Your task to perform on an android device: remove spam from my inbox in the gmail app Image 0: 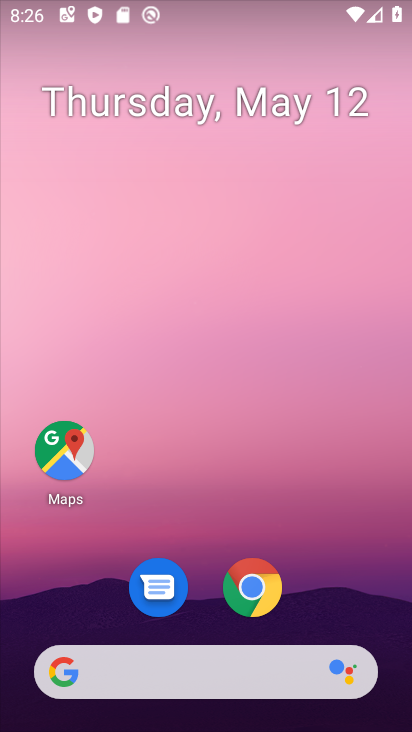
Step 0: drag from (356, 628) to (331, 314)
Your task to perform on an android device: remove spam from my inbox in the gmail app Image 1: 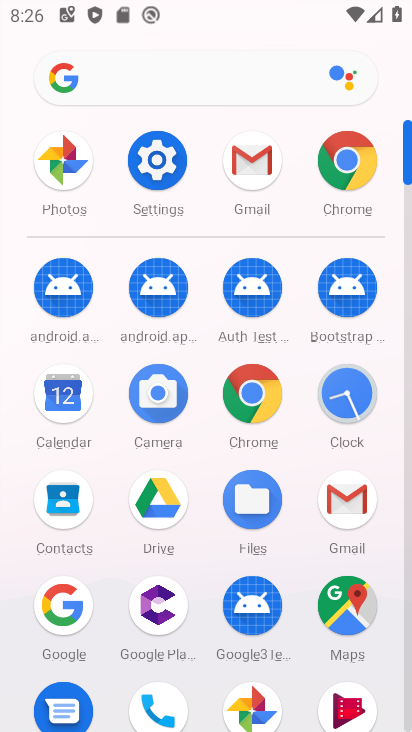
Step 1: click (352, 500)
Your task to perform on an android device: remove spam from my inbox in the gmail app Image 2: 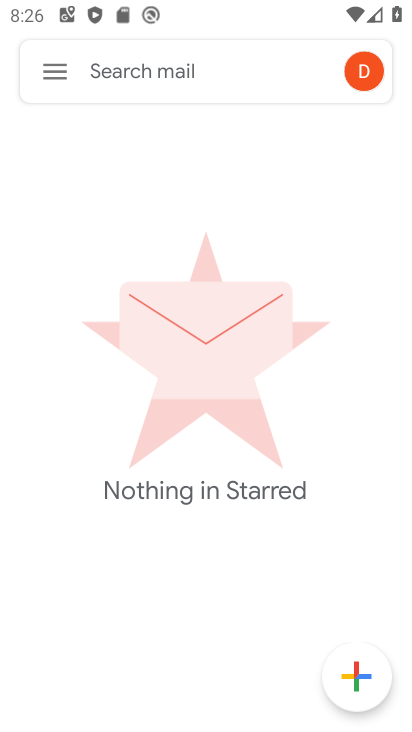
Step 2: click (41, 69)
Your task to perform on an android device: remove spam from my inbox in the gmail app Image 3: 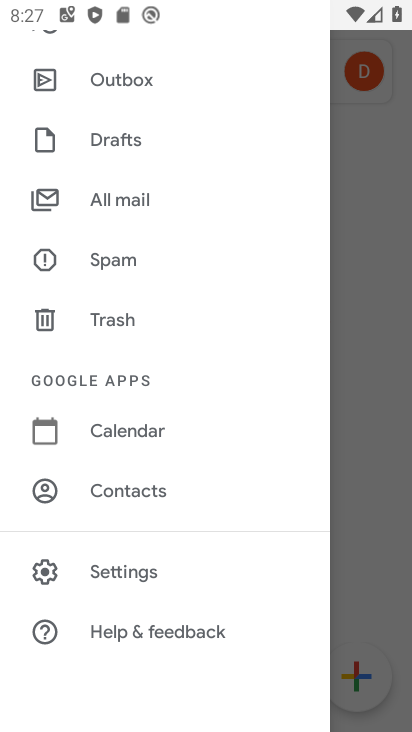
Step 3: click (110, 256)
Your task to perform on an android device: remove spam from my inbox in the gmail app Image 4: 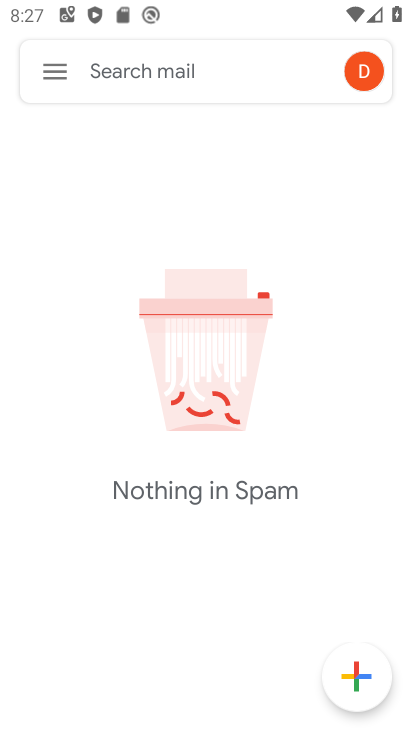
Step 4: task complete